Your task to perform on an android device: Open settings Image 0: 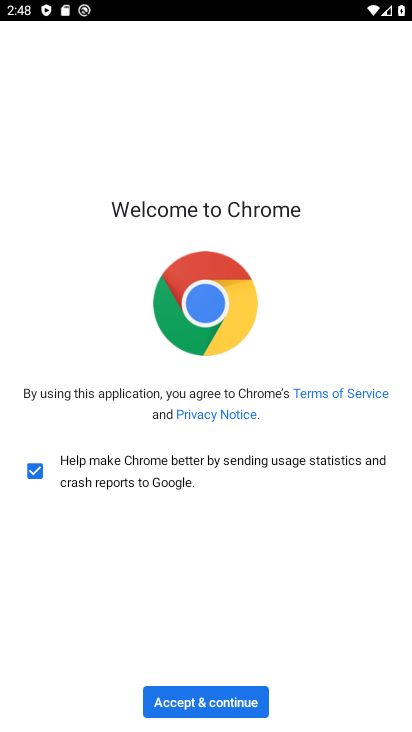
Step 0: press home button
Your task to perform on an android device: Open settings Image 1: 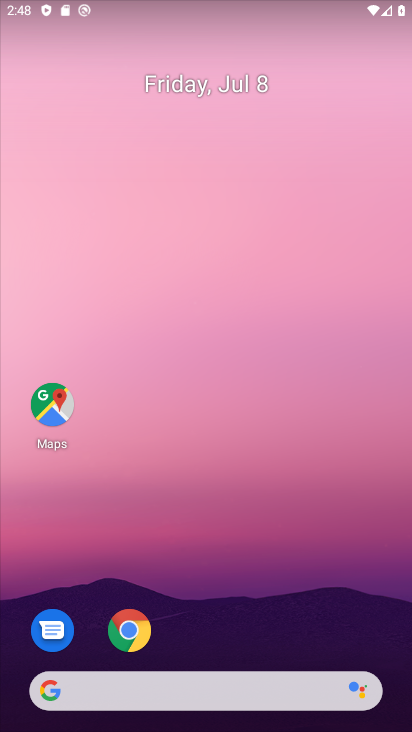
Step 1: drag from (251, 576) to (223, 95)
Your task to perform on an android device: Open settings Image 2: 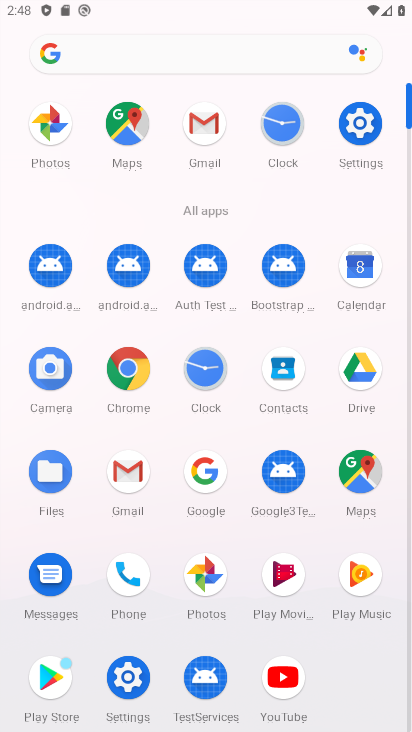
Step 2: click (124, 676)
Your task to perform on an android device: Open settings Image 3: 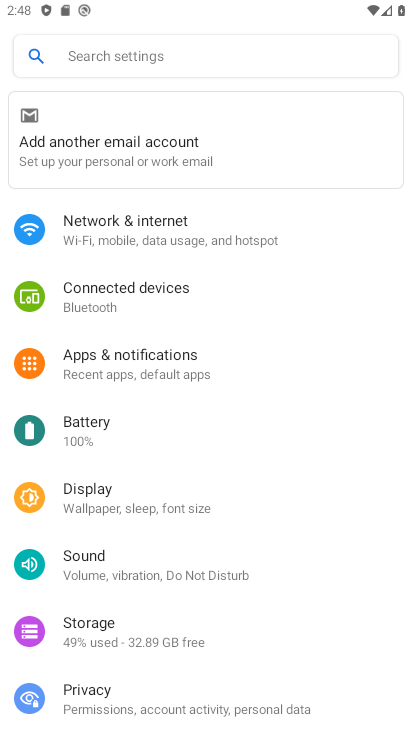
Step 3: task complete